Your task to perform on an android device: Open the stopwatch Image 0: 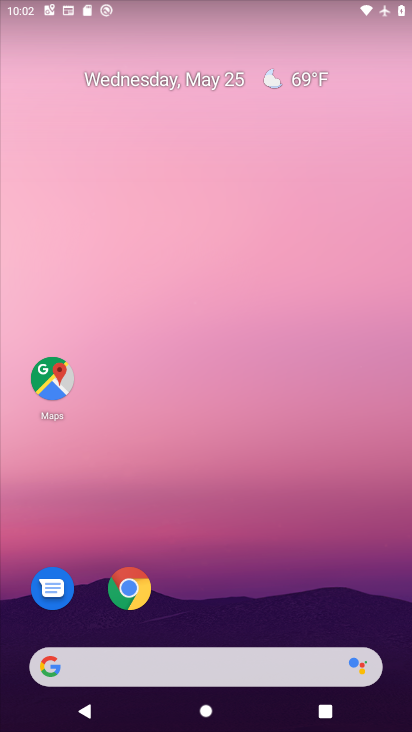
Step 0: drag from (386, 619) to (389, 271)
Your task to perform on an android device: Open the stopwatch Image 1: 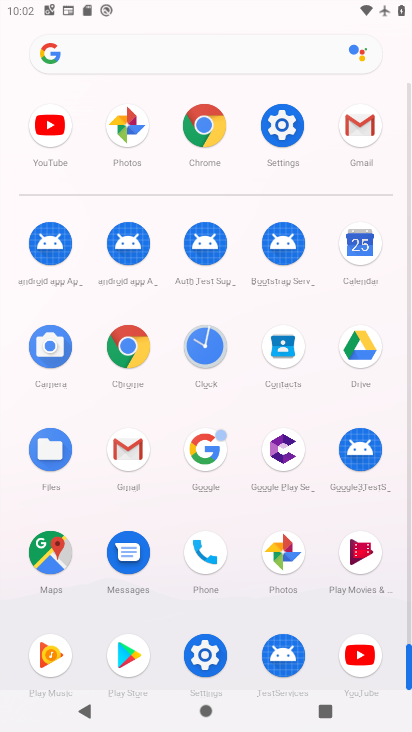
Step 1: click (204, 342)
Your task to perform on an android device: Open the stopwatch Image 2: 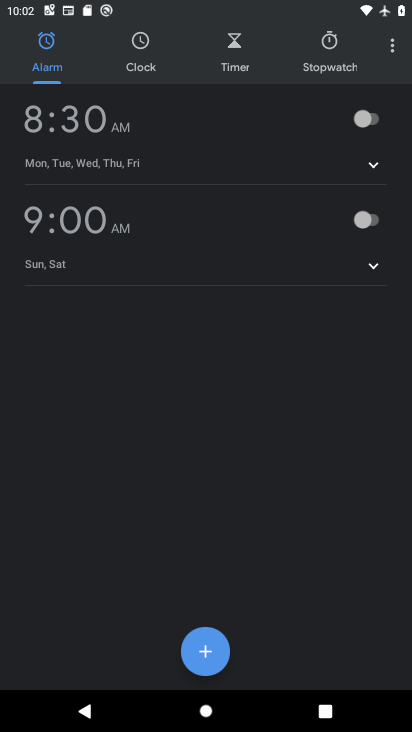
Step 2: click (330, 52)
Your task to perform on an android device: Open the stopwatch Image 3: 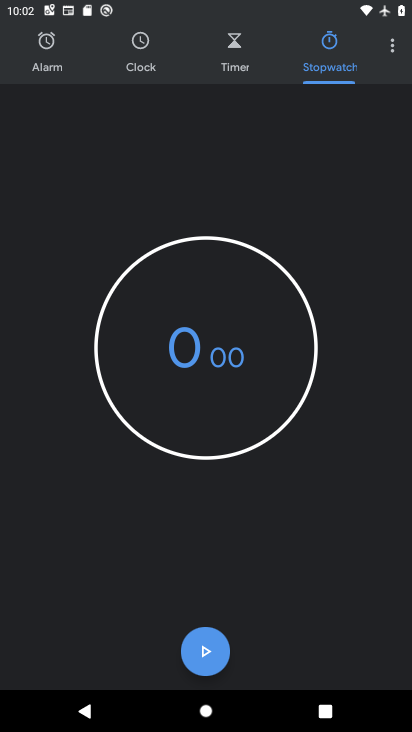
Step 3: task complete